Your task to perform on an android device: Go to Amazon Image 0: 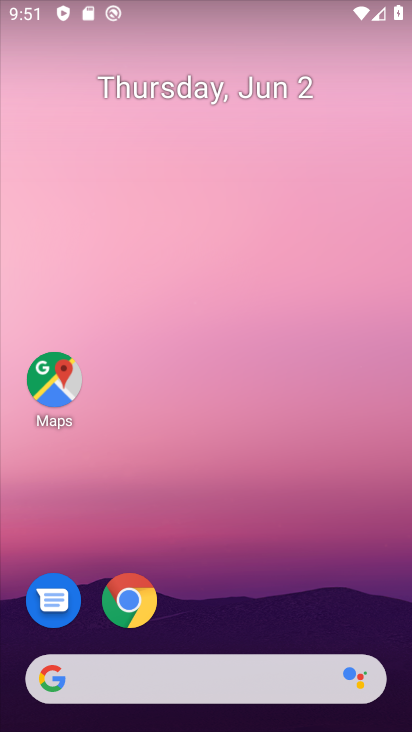
Step 0: click (158, 603)
Your task to perform on an android device: Go to Amazon Image 1: 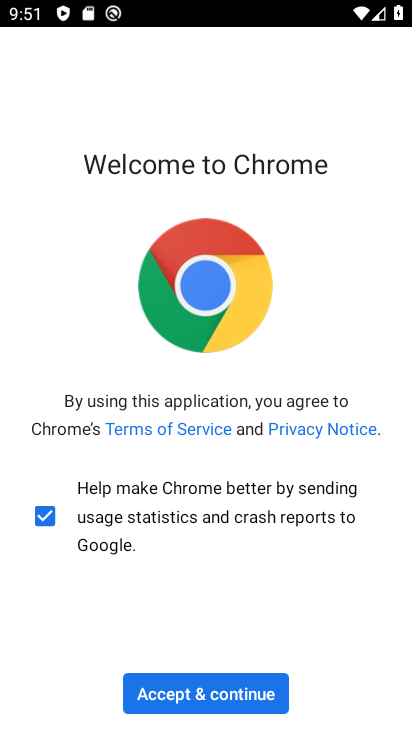
Step 1: click (212, 707)
Your task to perform on an android device: Go to Amazon Image 2: 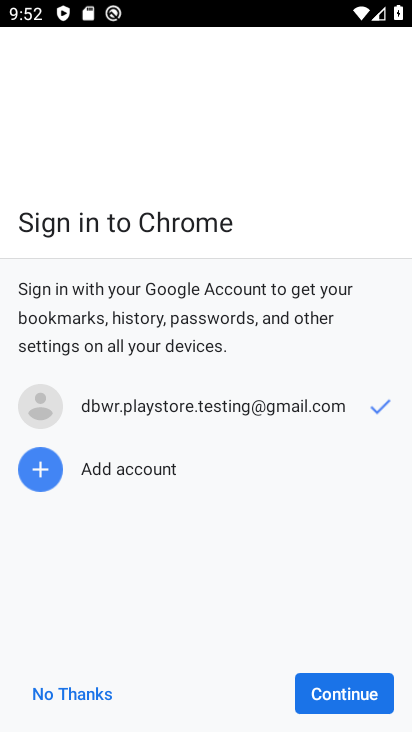
Step 2: click (382, 693)
Your task to perform on an android device: Go to Amazon Image 3: 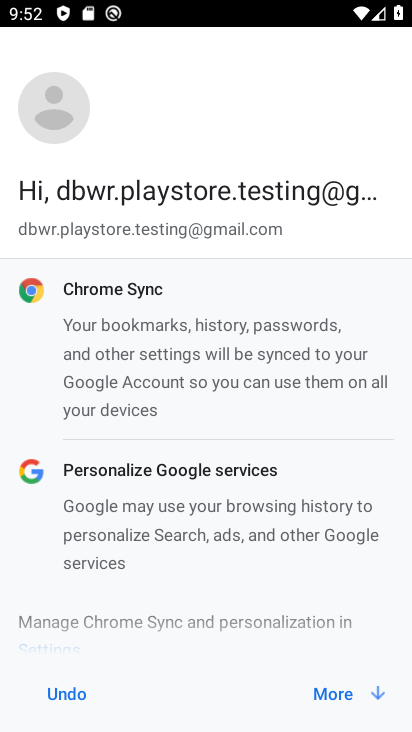
Step 3: click (368, 697)
Your task to perform on an android device: Go to Amazon Image 4: 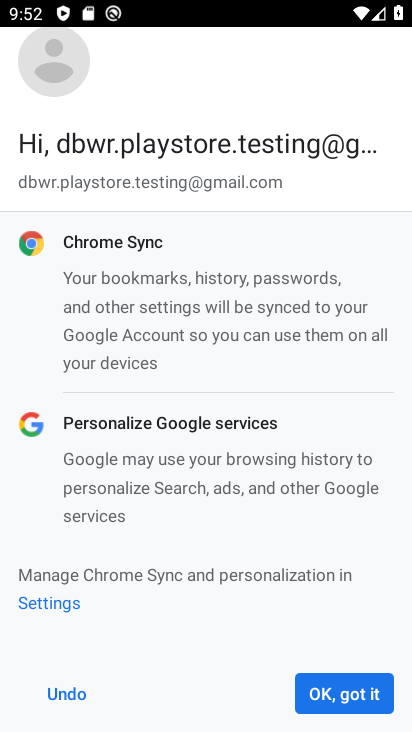
Step 4: click (368, 697)
Your task to perform on an android device: Go to Amazon Image 5: 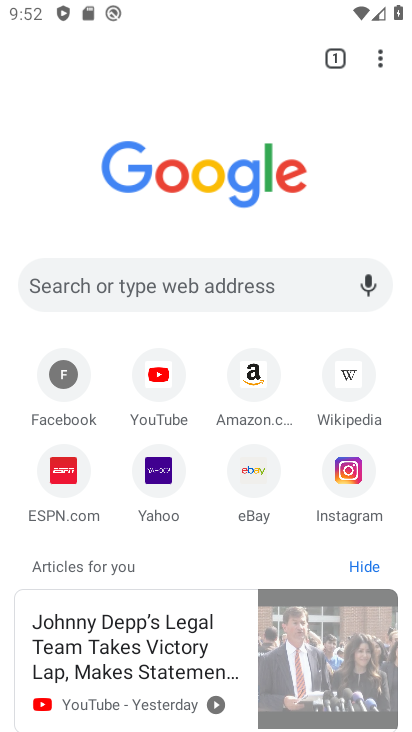
Step 5: click (261, 384)
Your task to perform on an android device: Go to Amazon Image 6: 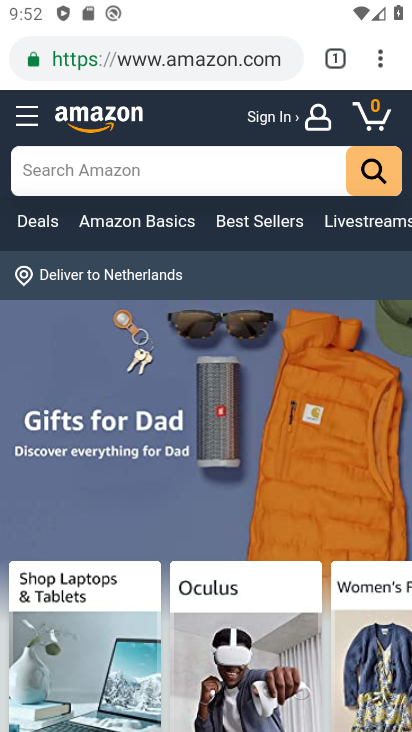
Step 6: task complete